Your task to perform on an android device: set the stopwatch Image 0: 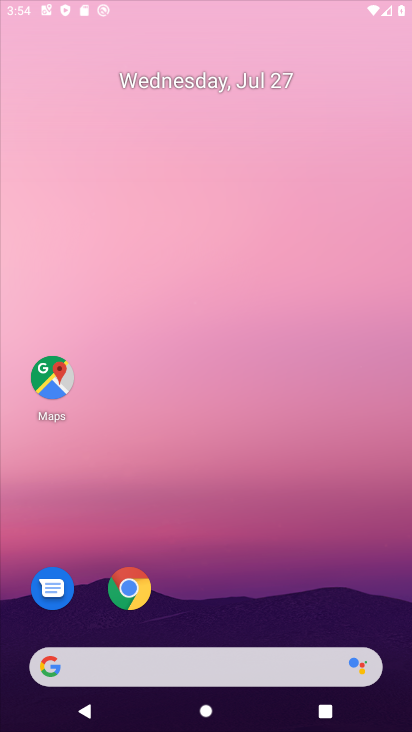
Step 0: press home button
Your task to perform on an android device: set the stopwatch Image 1: 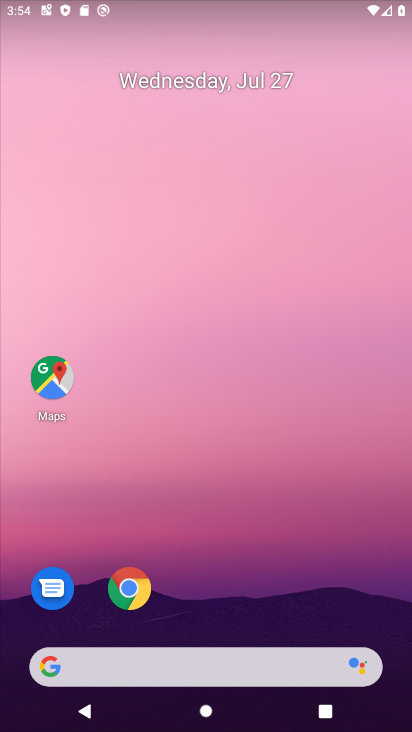
Step 1: drag from (233, 634) to (249, 201)
Your task to perform on an android device: set the stopwatch Image 2: 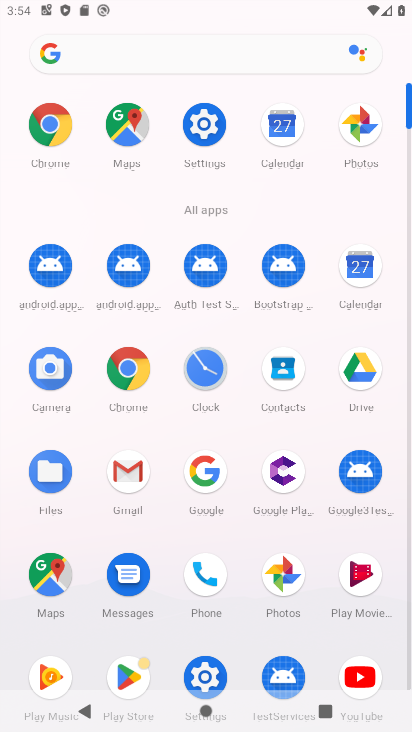
Step 2: click (202, 370)
Your task to perform on an android device: set the stopwatch Image 3: 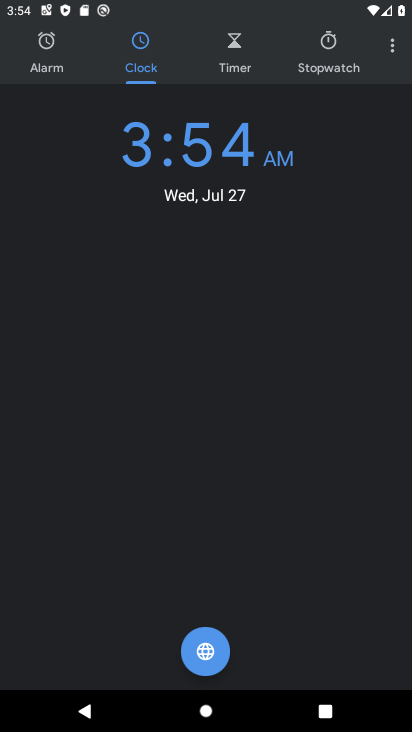
Step 3: click (326, 59)
Your task to perform on an android device: set the stopwatch Image 4: 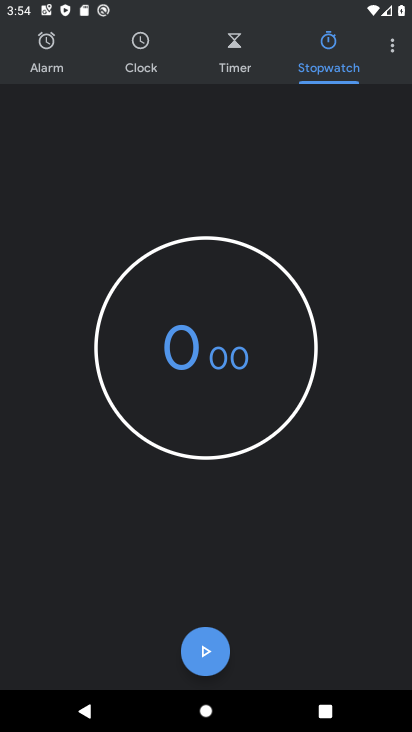
Step 4: click (205, 662)
Your task to perform on an android device: set the stopwatch Image 5: 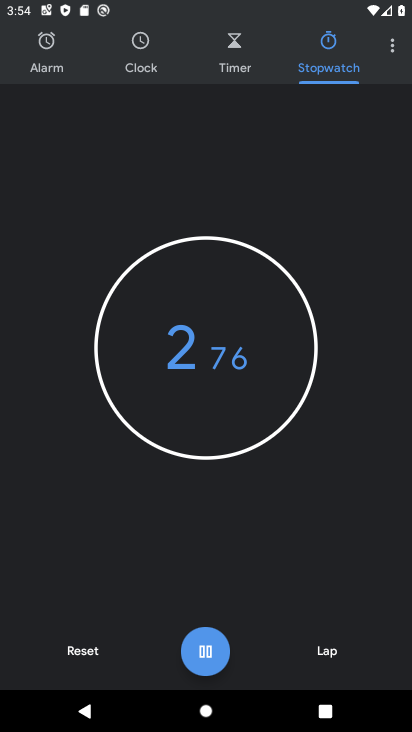
Step 5: task complete